Your task to perform on an android device: Show me the alarms in the clock app Image 0: 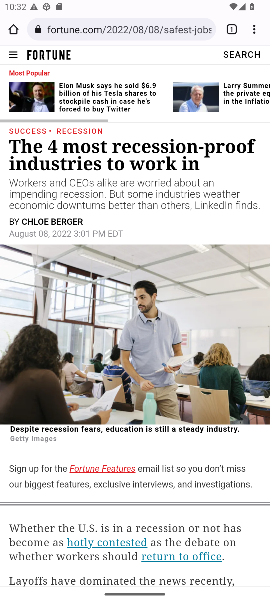
Step 0: press home button
Your task to perform on an android device: Show me the alarms in the clock app Image 1: 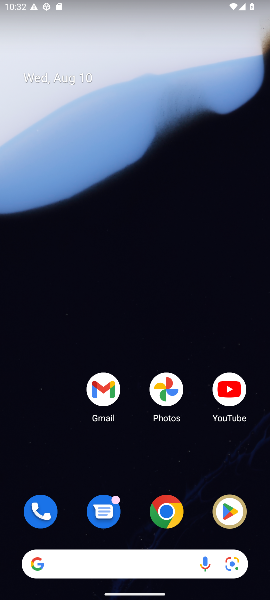
Step 1: drag from (133, 538) to (91, 23)
Your task to perform on an android device: Show me the alarms in the clock app Image 2: 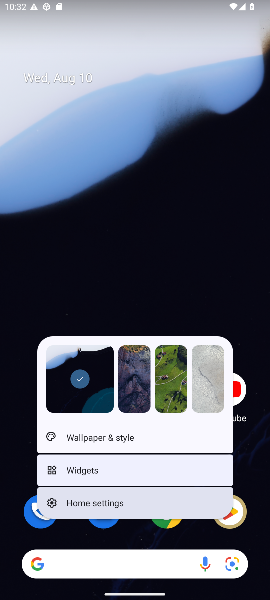
Step 2: click (161, 380)
Your task to perform on an android device: Show me the alarms in the clock app Image 3: 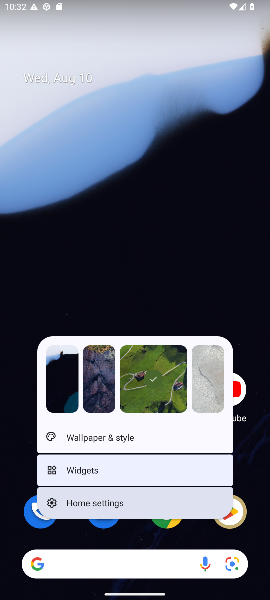
Step 3: click (154, 370)
Your task to perform on an android device: Show me the alarms in the clock app Image 4: 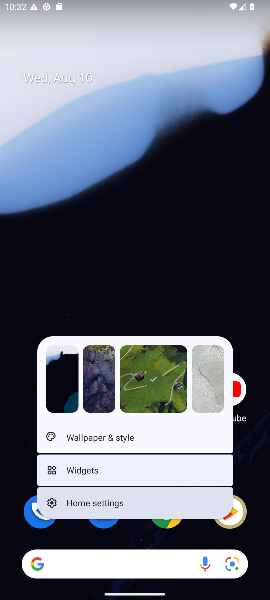
Step 4: click (154, 370)
Your task to perform on an android device: Show me the alarms in the clock app Image 5: 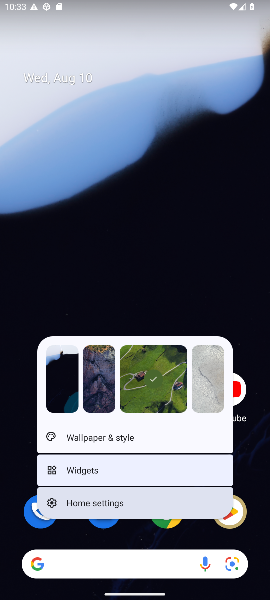
Step 5: click (135, 554)
Your task to perform on an android device: Show me the alarms in the clock app Image 6: 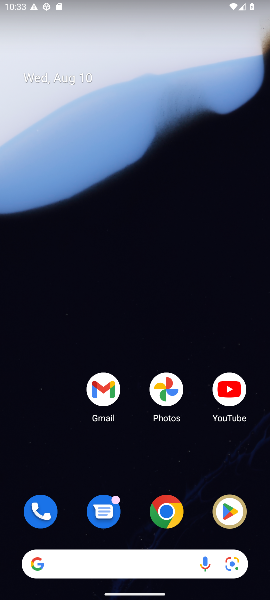
Step 6: drag from (136, 542) to (172, 406)
Your task to perform on an android device: Show me the alarms in the clock app Image 7: 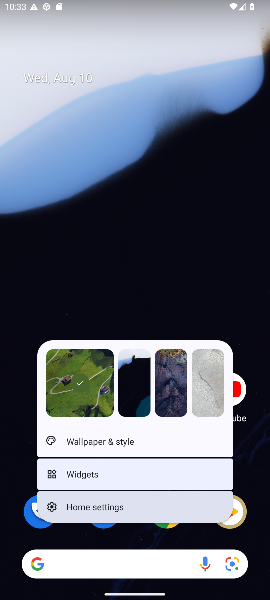
Step 7: click (118, 310)
Your task to perform on an android device: Show me the alarms in the clock app Image 8: 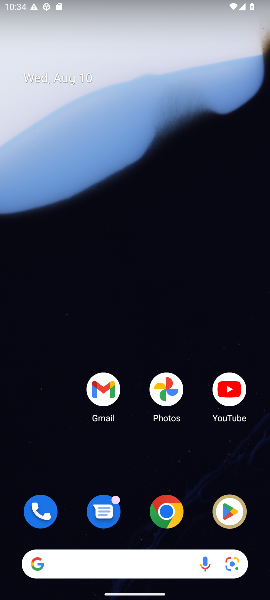
Step 8: drag from (132, 530) to (144, 135)
Your task to perform on an android device: Show me the alarms in the clock app Image 9: 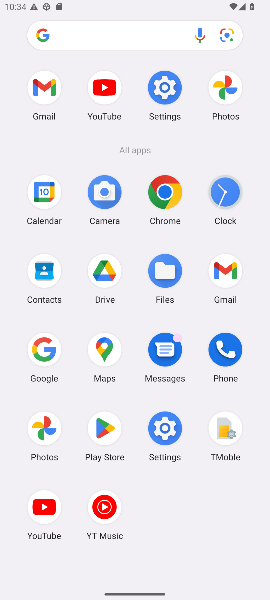
Step 9: click (226, 196)
Your task to perform on an android device: Show me the alarms in the clock app Image 10: 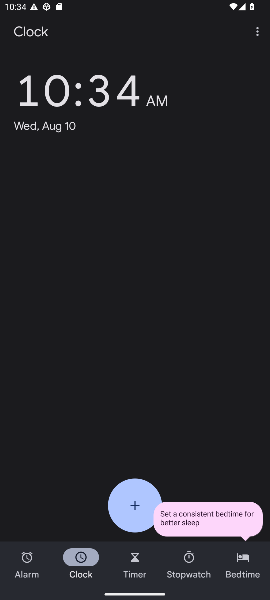
Step 10: click (25, 563)
Your task to perform on an android device: Show me the alarms in the clock app Image 11: 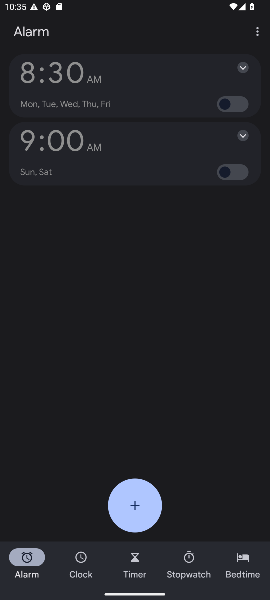
Step 11: task complete